Your task to perform on an android device: turn off improve location accuracy Image 0: 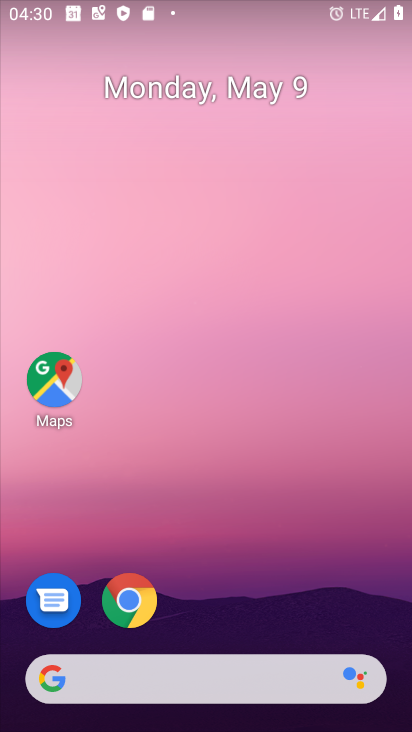
Step 0: drag from (249, 657) to (155, 19)
Your task to perform on an android device: turn off improve location accuracy Image 1: 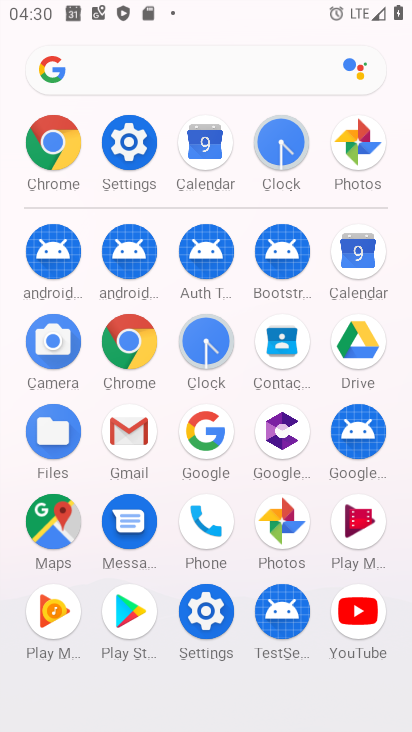
Step 1: click (128, 140)
Your task to perform on an android device: turn off improve location accuracy Image 2: 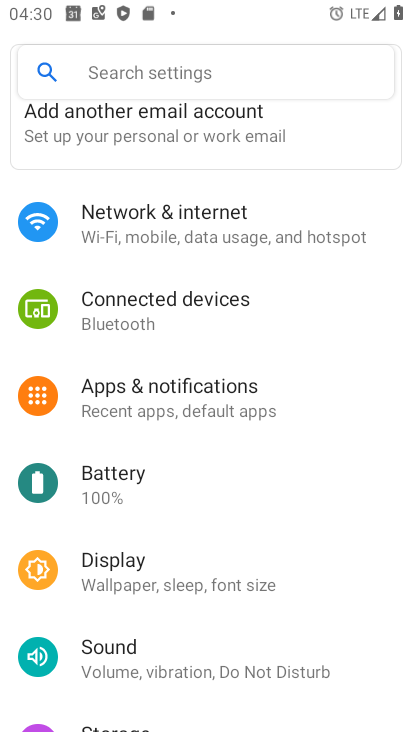
Step 2: drag from (188, 705) to (165, 176)
Your task to perform on an android device: turn off improve location accuracy Image 3: 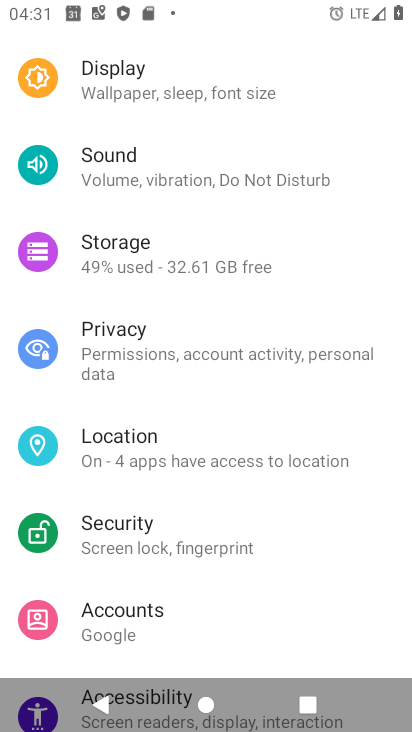
Step 3: click (174, 443)
Your task to perform on an android device: turn off improve location accuracy Image 4: 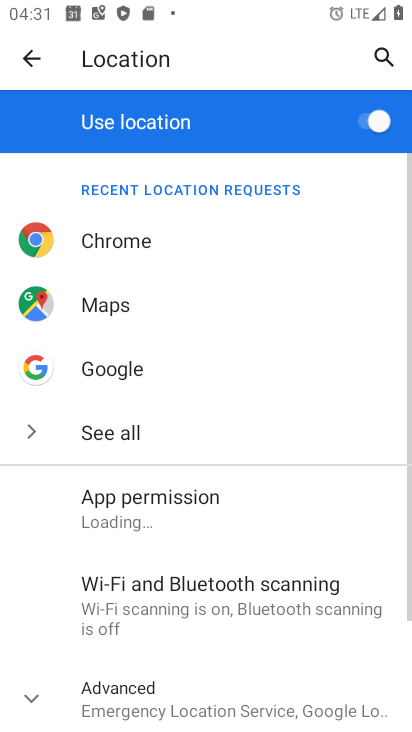
Step 4: drag from (193, 619) to (228, 136)
Your task to perform on an android device: turn off improve location accuracy Image 5: 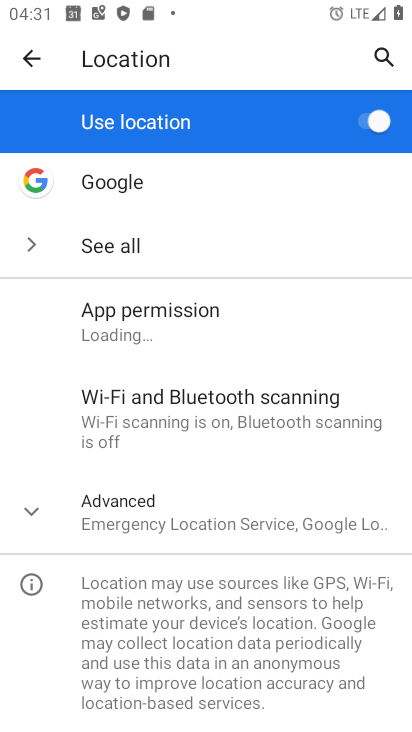
Step 5: click (302, 516)
Your task to perform on an android device: turn off improve location accuracy Image 6: 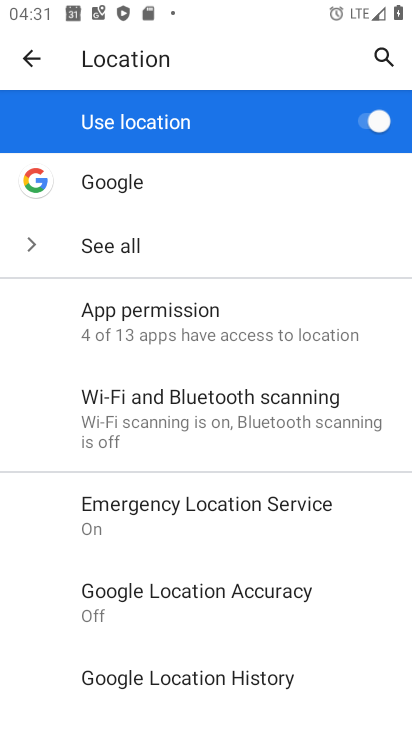
Step 6: click (295, 604)
Your task to perform on an android device: turn off improve location accuracy Image 7: 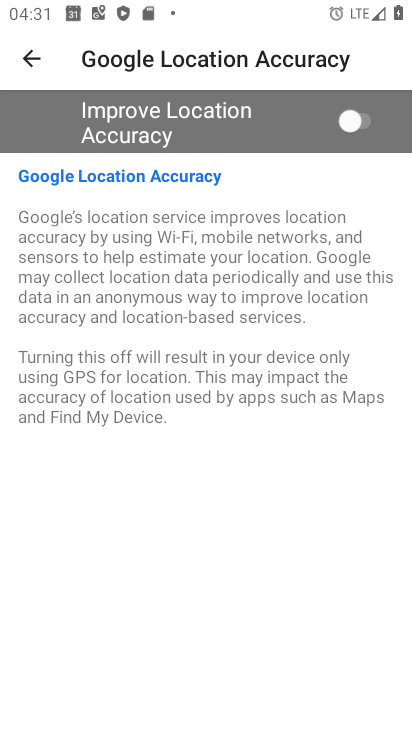
Step 7: task complete